Your task to perform on an android device: Open wifi settings Image 0: 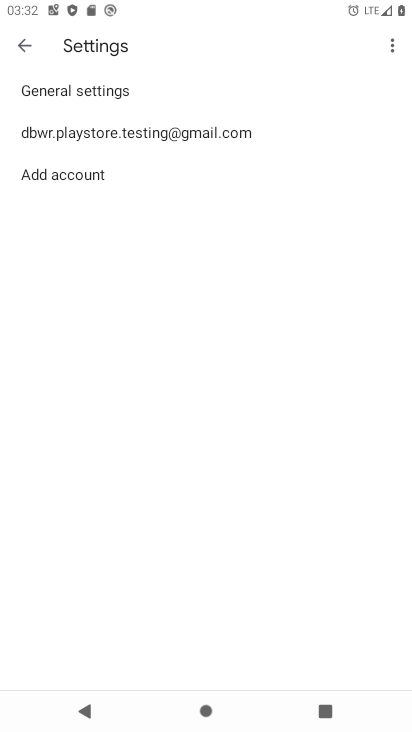
Step 0: press home button
Your task to perform on an android device: Open wifi settings Image 1: 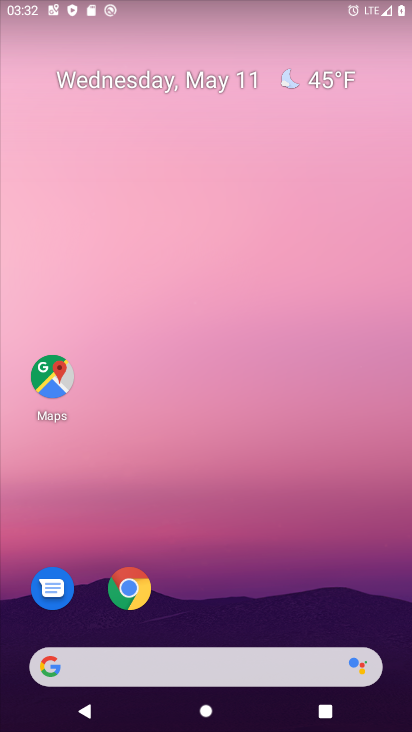
Step 1: drag from (207, 612) to (240, 189)
Your task to perform on an android device: Open wifi settings Image 2: 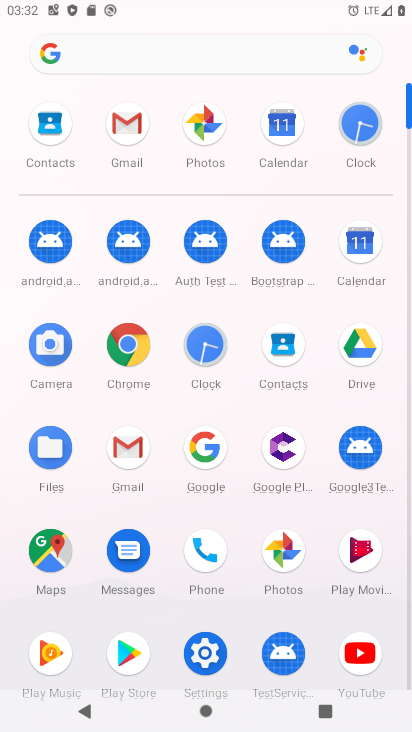
Step 2: click (203, 630)
Your task to perform on an android device: Open wifi settings Image 3: 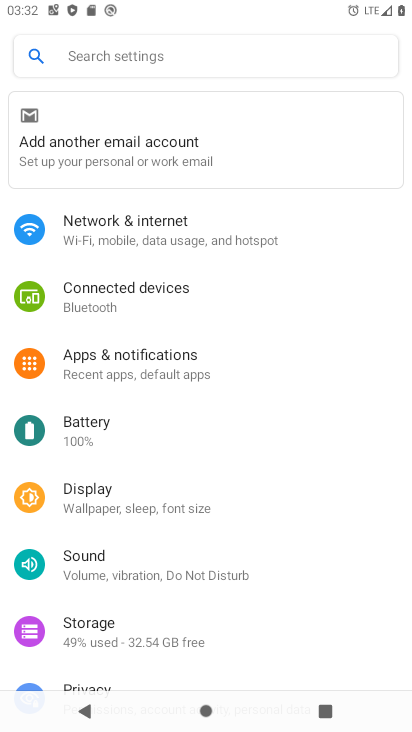
Step 3: click (159, 232)
Your task to perform on an android device: Open wifi settings Image 4: 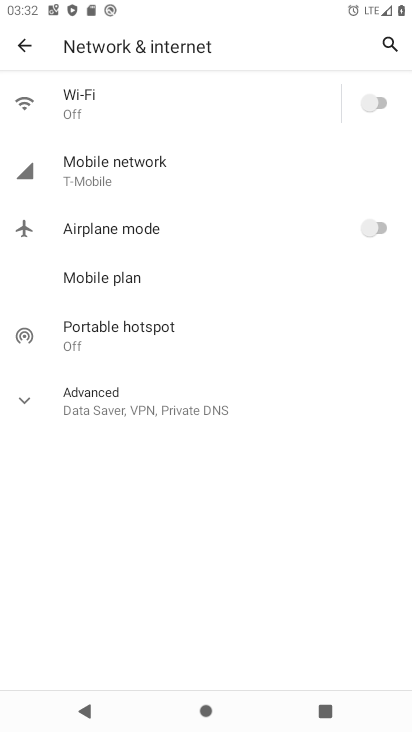
Step 4: click (98, 99)
Your task to perform on an android device: Open wifi settings Image 5: 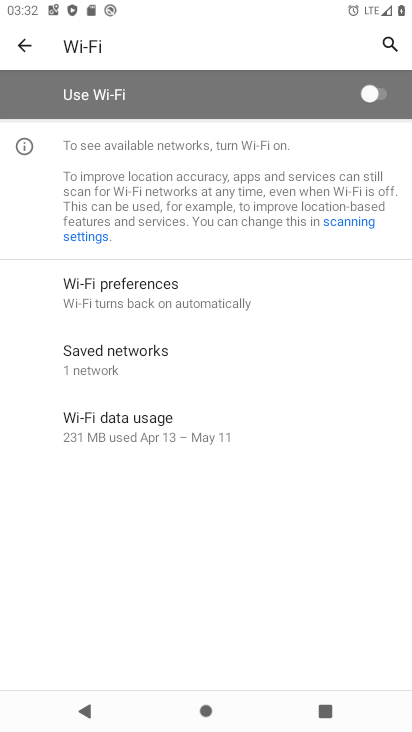
Step 5: task complete